Your task to perform on an android device: change alarm snooze length Image 0: 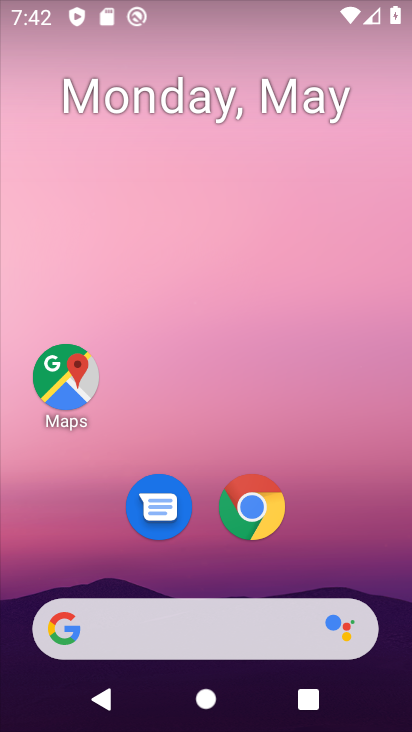
Step 0: drag from (351, 585) to (381, 16)
Your task to perform on an android device: change alarm snooze length Image 1: 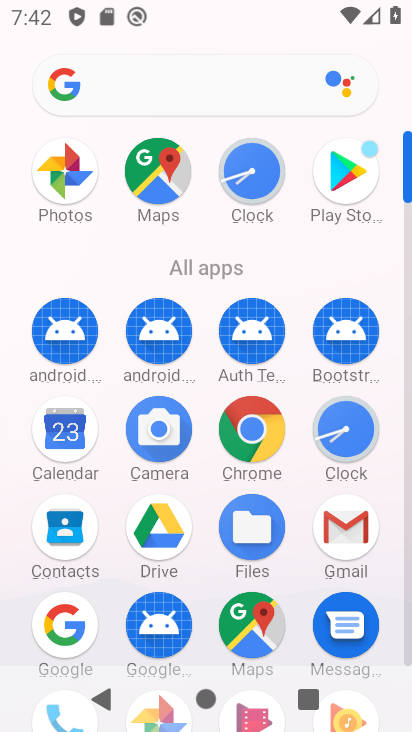
Step 1: click (249, 175)
Your task to perform on an android device: change alarm snooze length Image 2: 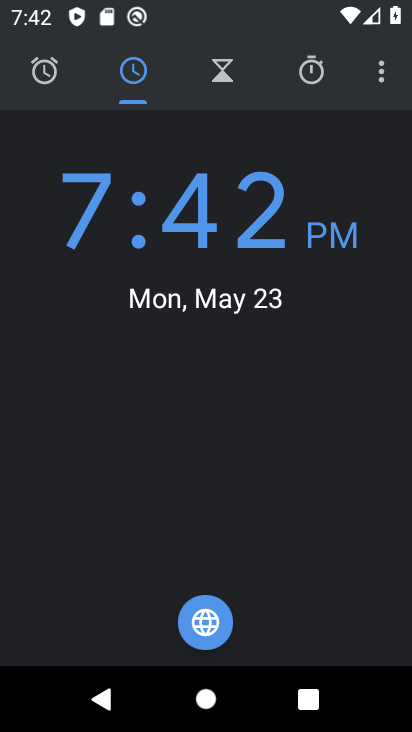
Step 2: click (390, 69)
Your task to perform on an android device: change alarm snooze length Image 3: 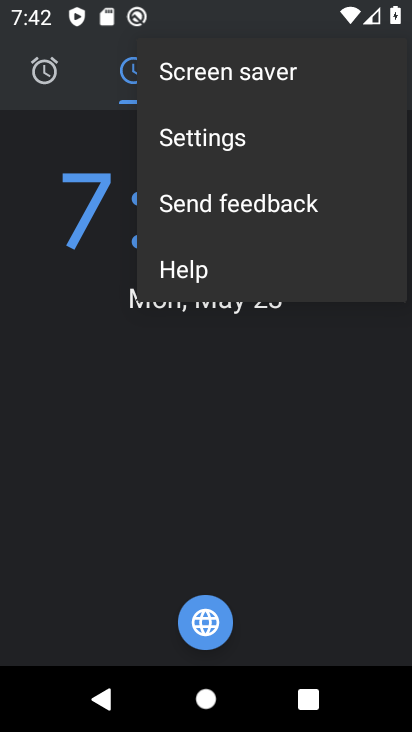
Step 3: click (226, 133)
Your task to perform on an android device: change alarm snooze length Image 4: 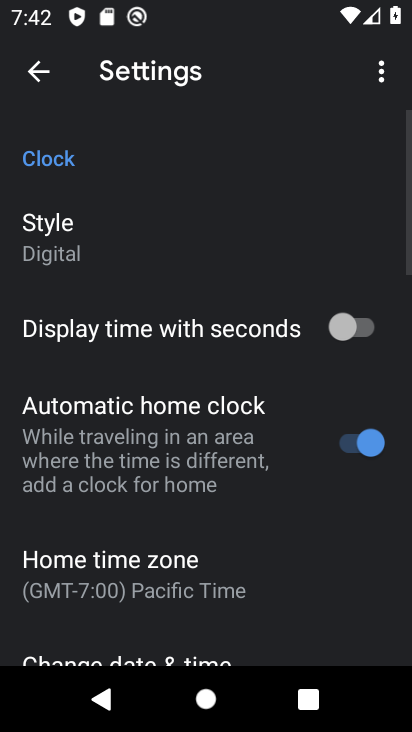
Step 4: drag from (187, 465) to (201, 145)
Your task to perform on an android device: change alarm snooze length Image 5: 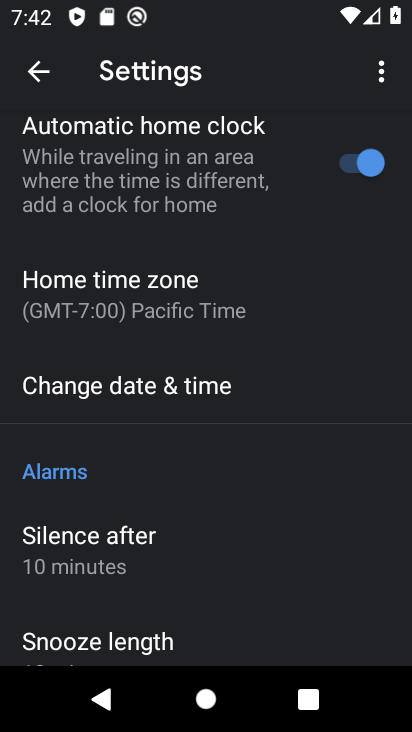
Step 5: drag from (155, 416) to (160, 147)
Your task to perform on an android device: change alarm snooze length Image 6: 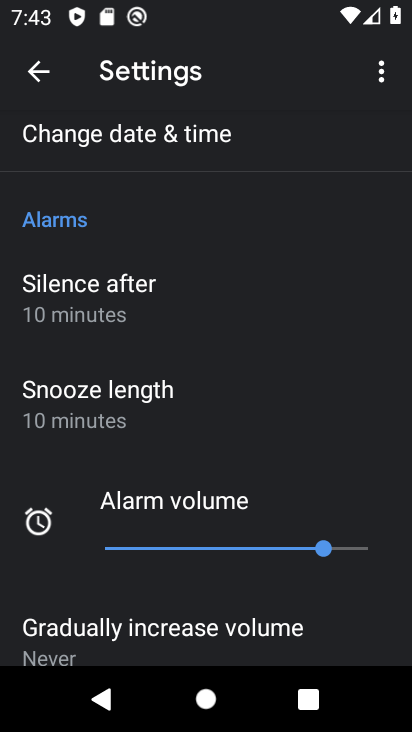
Step 6: click (90, 400)
Your task to perform on an android device: change alarm snooze length Image 7: 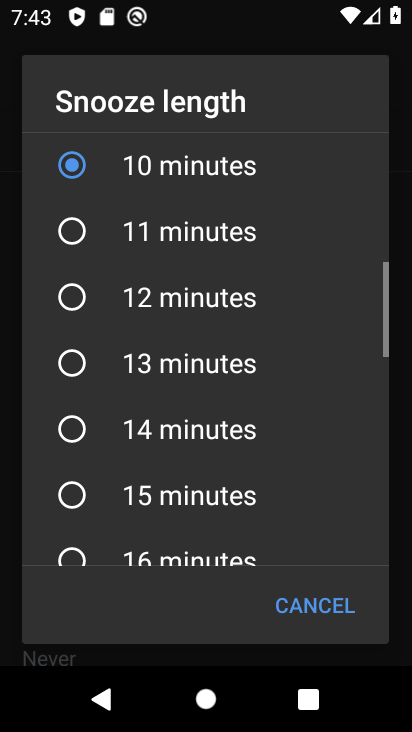
Step 7: click (72, 309)
Your task to perform on an android device: change alarm snooze length Image 8: 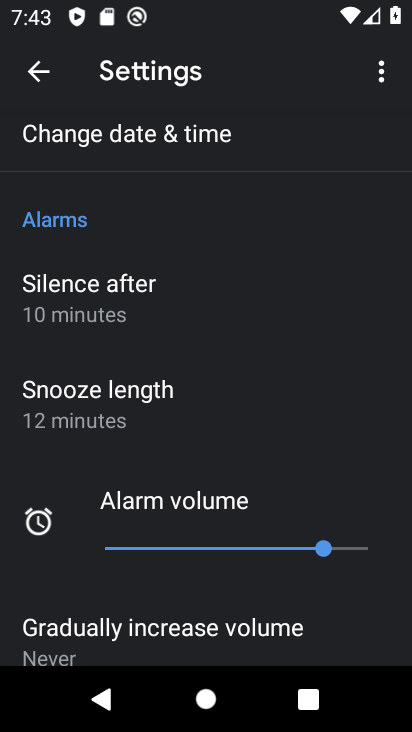
Step 8: task complete